Your task to perform on an android device: turn on sleep mode Image 0: 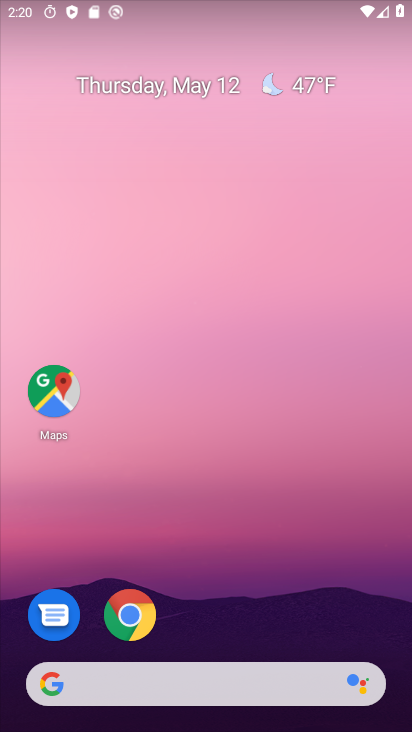
Step 0: drag from (250, 595) to (259, 202)
Your task to perform on an android device: turn on sleep mode Image 1: 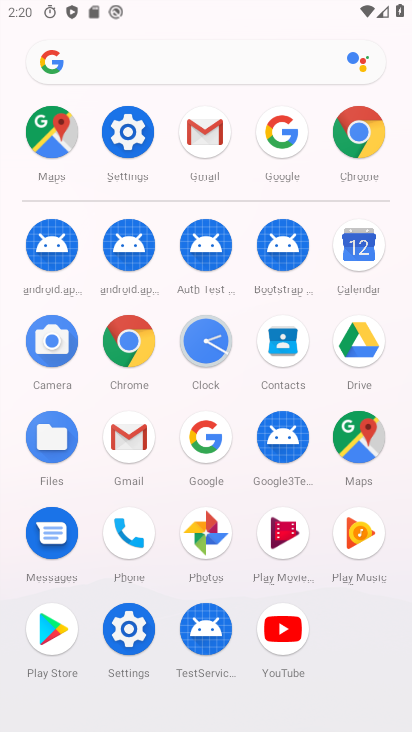
Step 1: click (132, 627)
Your task to perform on an android device: turn on sleep mode Image 2: 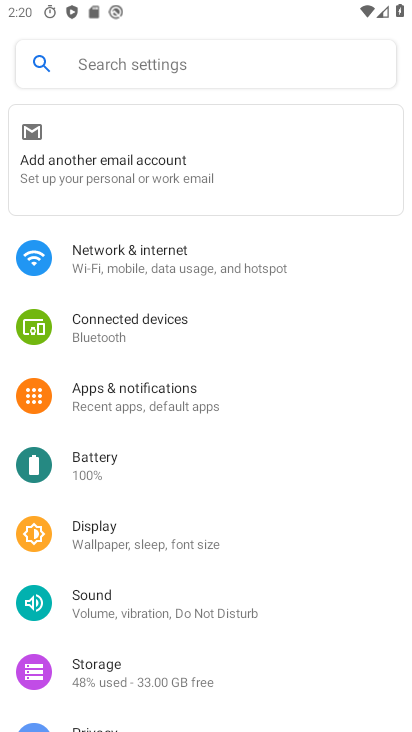
Step 2: click (144, 527)
Your task to perform on an android device: turn on sleep mode Image 3: 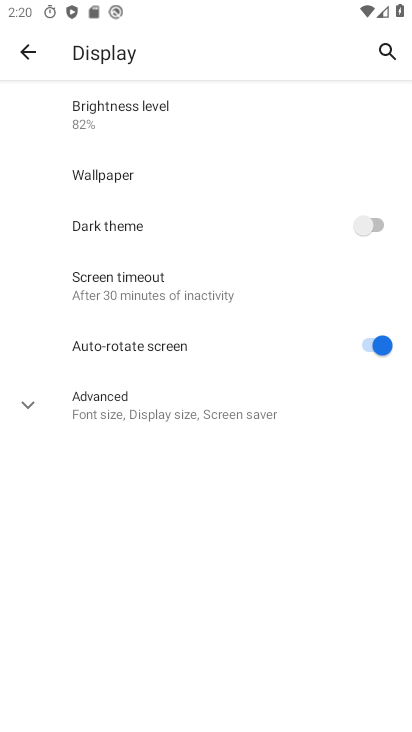
Step 3: click (146, 282)
Your task to perform on an android device: turn on sleep mode Image 4: 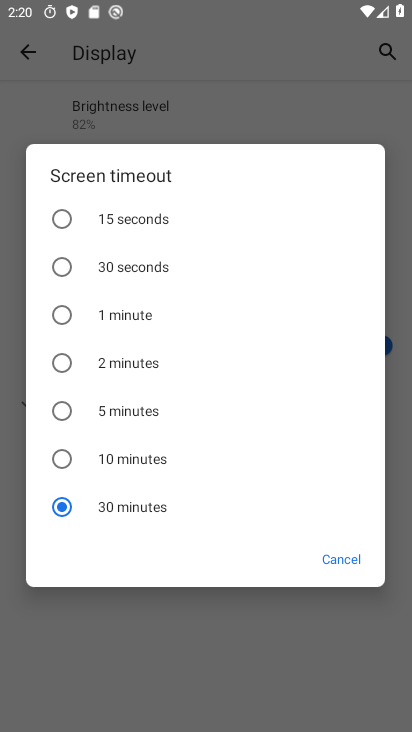
Step 4: task complete